Your task to perform on an android device: turn on priority inbox in the gmail app Image 0: 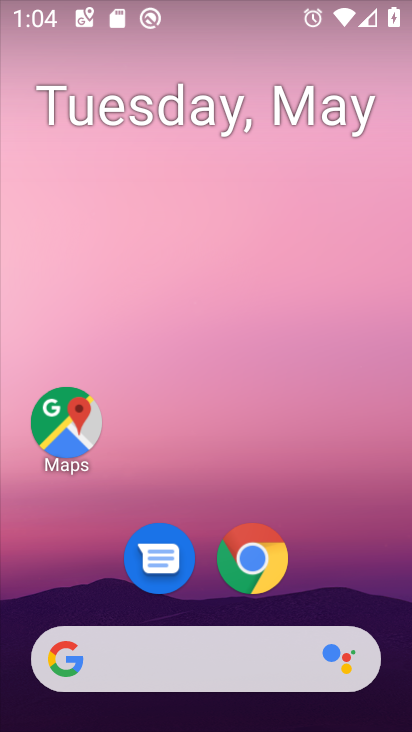
Step 0: drag from (341, 593) to (272, 132)
Your task to perform on an android device: turn on priority inbox in the gmail app Image 1: 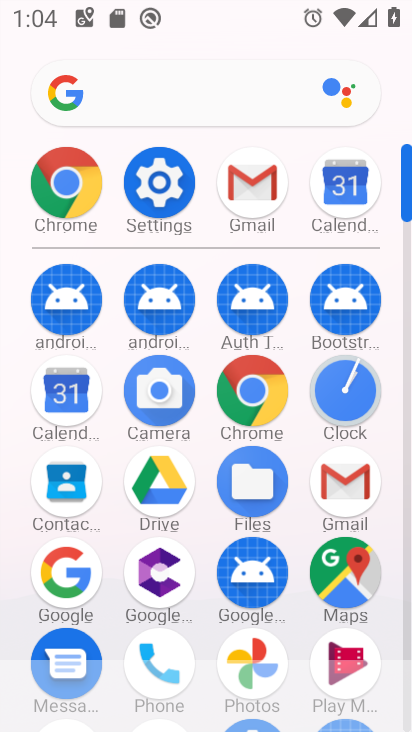
Step 1: click (239, 184)
Your task to perform on an android device: turn on priority inbox in the gmail app Image 2: 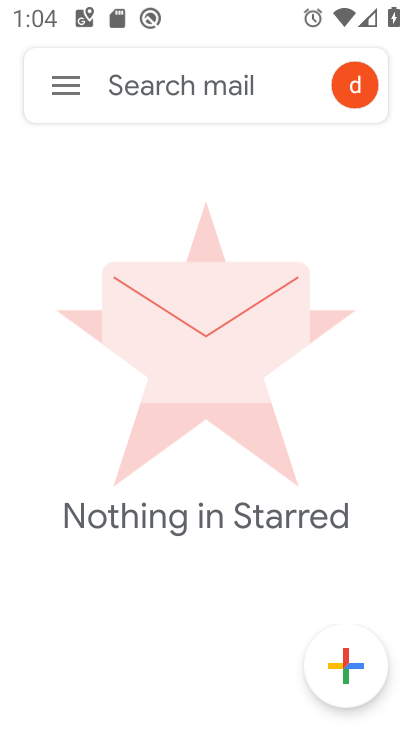
Step 2: click (72, 91)
Your task to perform on an android device: turn on priority inbox in the gmail app Image 3: 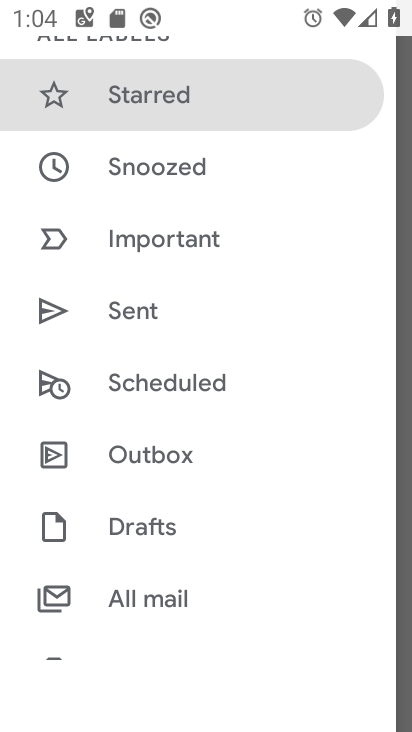
Step 3: drag from (198, 629) to (184, 200)
Your task to perform on an android device: turn on priority inbox in the gmail app Image 4: 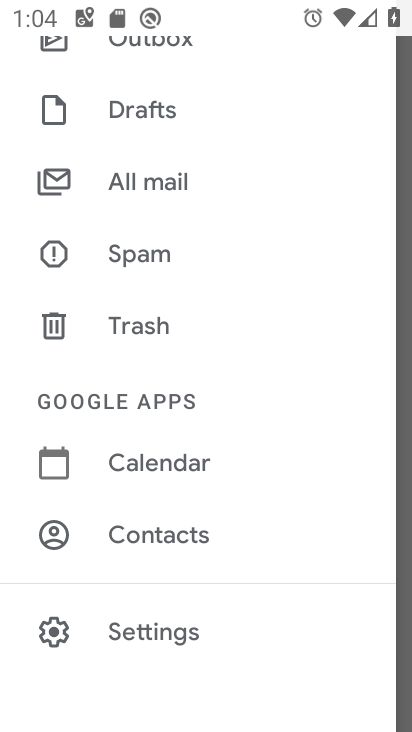
Step 4: click (201, 636)
Your task to perform on an android device: turn on priority inbox in the gmail app Image 5: 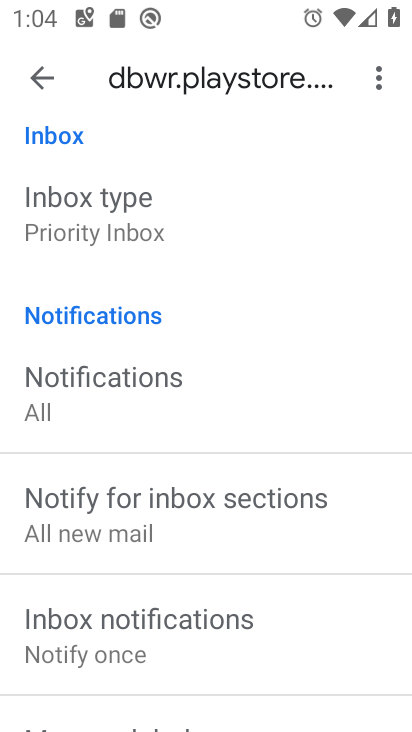
Step 5: task complete